Your task to perform on an android device: find which apps use the phone's location Image 0: 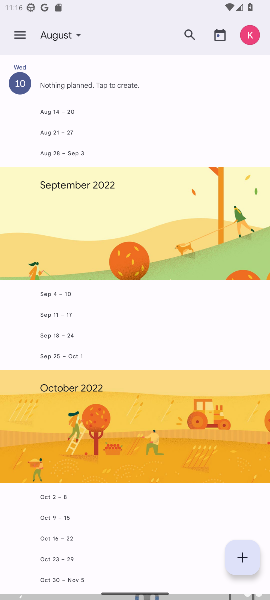
Step 0: press home button
Your task to perform on an android device: find which apps use the phone's location Image 1: 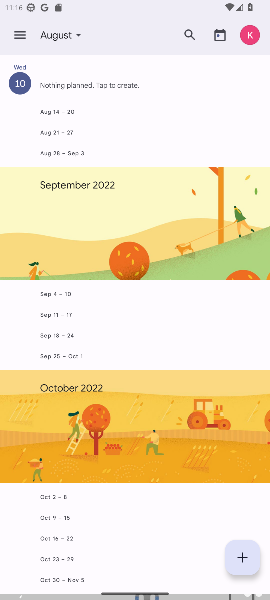
Step 1: press home button
Your task to perform on an android device: find which apps use the phone's location Image 2: 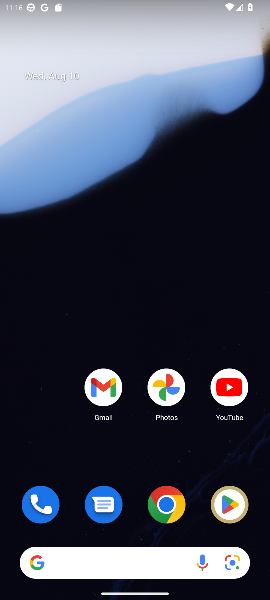
Step 2: drag from (59, 421) to (69, 17)
Your task to perform on an android device: find which apps use the phone's location Image 3: 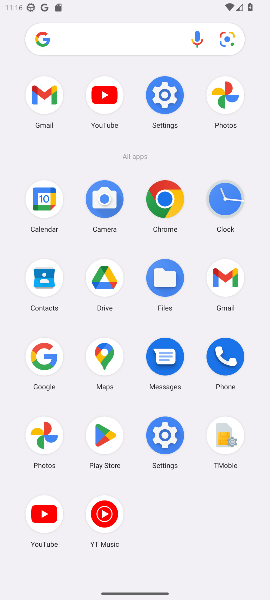
Step 3: click (159, 90)
Your task to perform on an android device: find which apps use the phone's location Image 4: 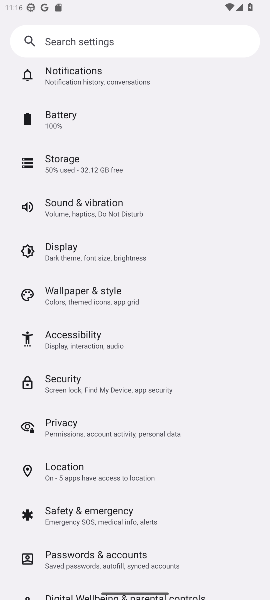
Step 4: drag from (136, 501) to (133, 261)
Your task to perform on an android device: find which apps use the phone's location Image 5: 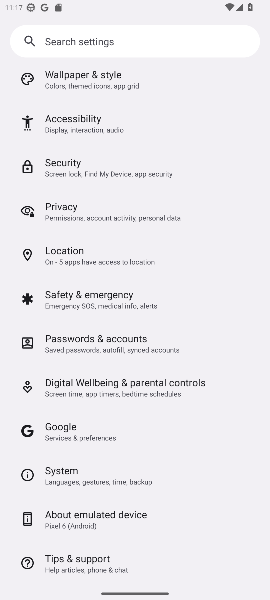
Step 5: click (58, 249)
Your task to perform on an android device: find which apps use the phone's location Image 6: 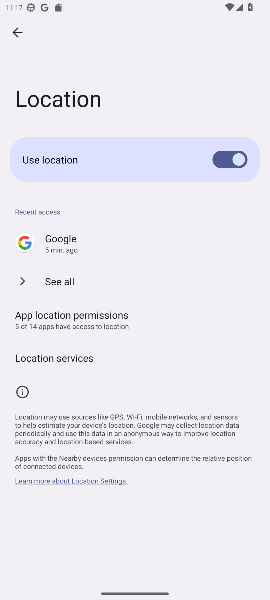
Step 6: click (62, 317)
Your task to perform on an android device: find which apps use the phone's location Image 7: 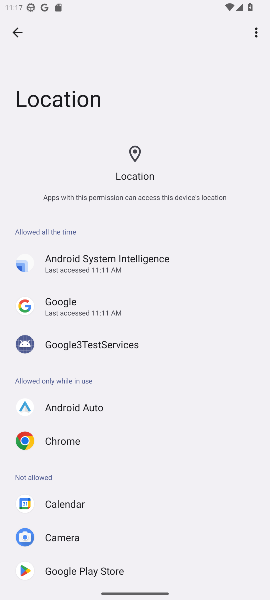
Step 7: task complete